Your task to perform on an android device: Go to notification settings Image 0: 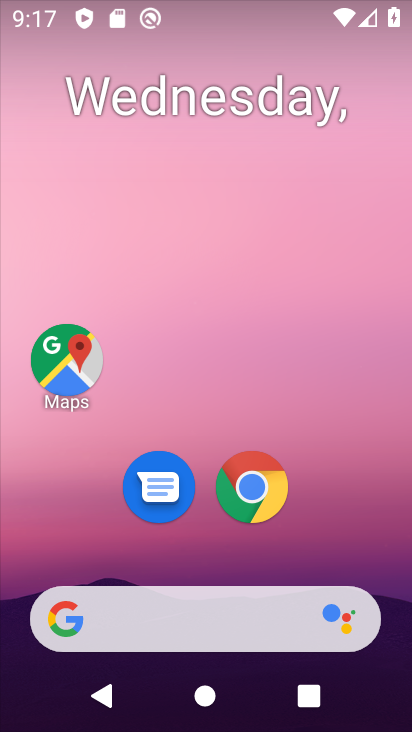
Step 0: drag from (244, 692) to (230, 112)
Your task to perform on an android device: Go to notification settings Image 1: 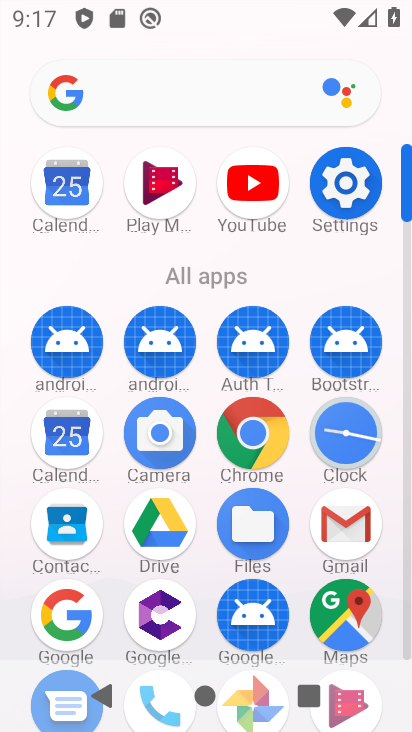
Step 1: click (373, 199)
Your task to perform on an android device: Go to notification settings Image 2: 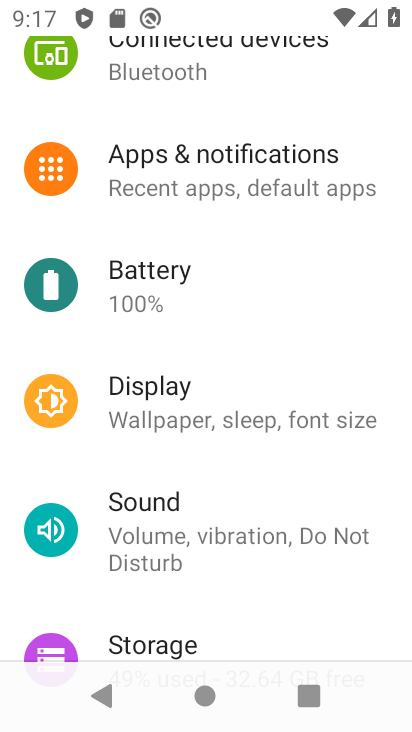
Step 2: click (254, 161)
Your task to perform on an android device: Go to notification settings Image 3: 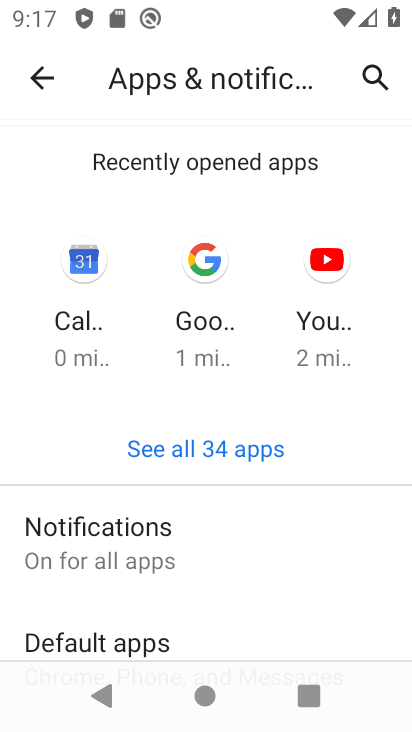
Step 3: task complete